Your task to perform on an android device: Go to Wikipedia Image 0: 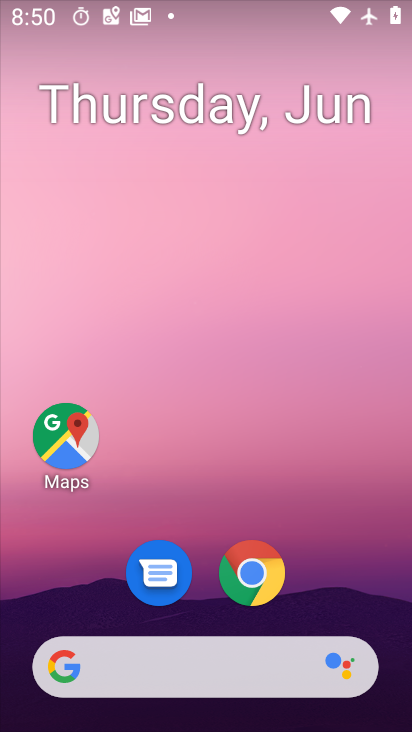
Step 0: click (242, 570)
Your task to perform on an android device: Go to Wikipedia Image 1: 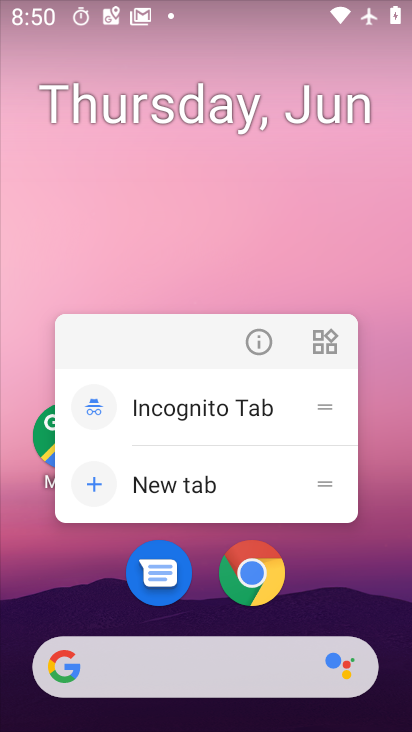
Step 1: click (264, 566)
Your task to perform on an android device: Go to Wikipedia Image 2: 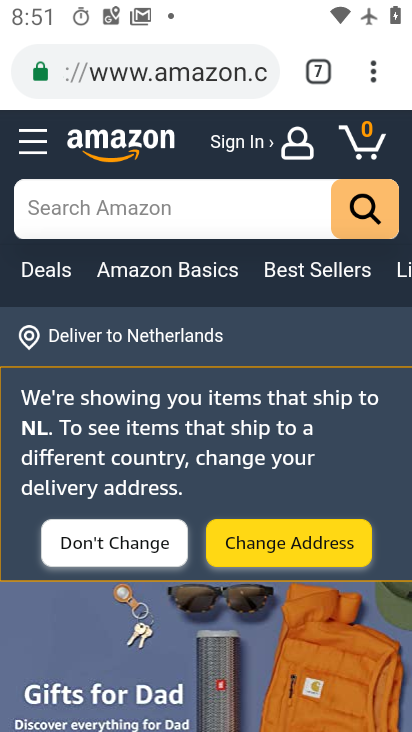
Step 2: click (366, 75)
Your task to perform on an android device: Go to Wikipedia Image 3: 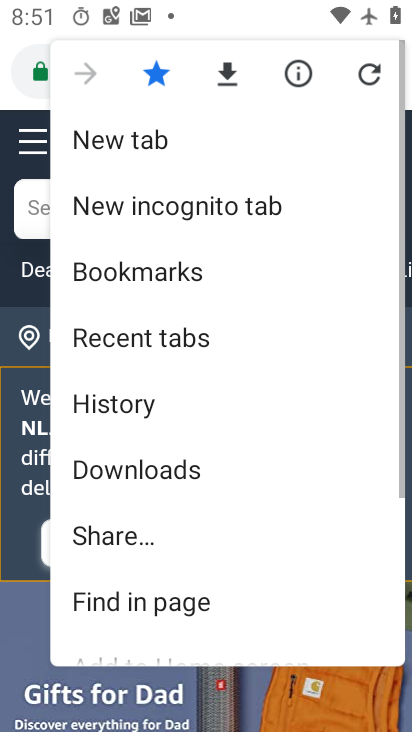
Step 3: click (167, 154)
Your task to perform on an android device: Go to Wikipedia Image 4: 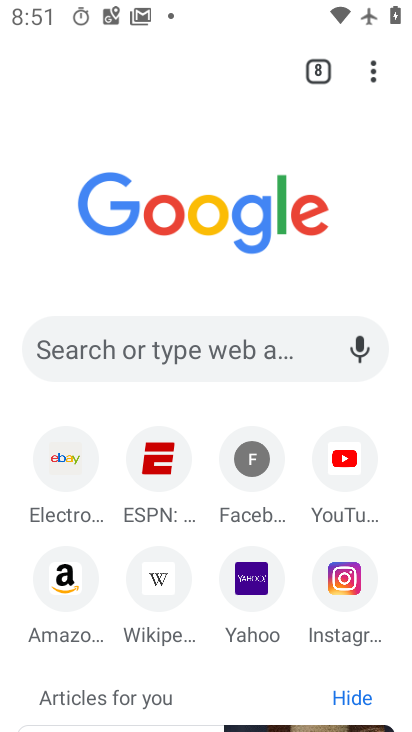
Step 4: click (138, 571)
Your task to perform on an android device: Go to Wikipedia Image 5: 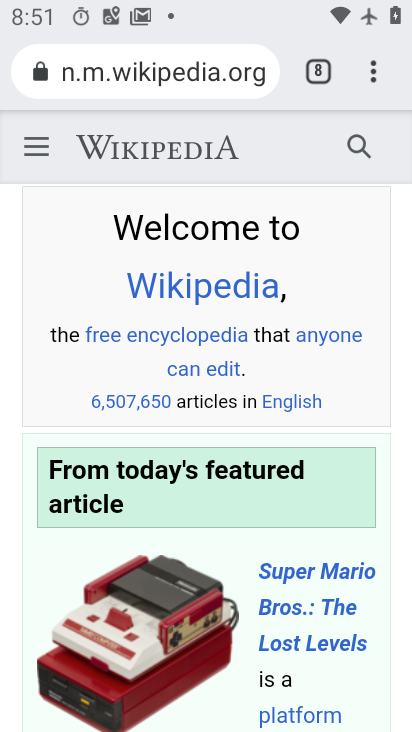
Step 5: task complete